Your task to perform on an android device: change timer sound Image 0: 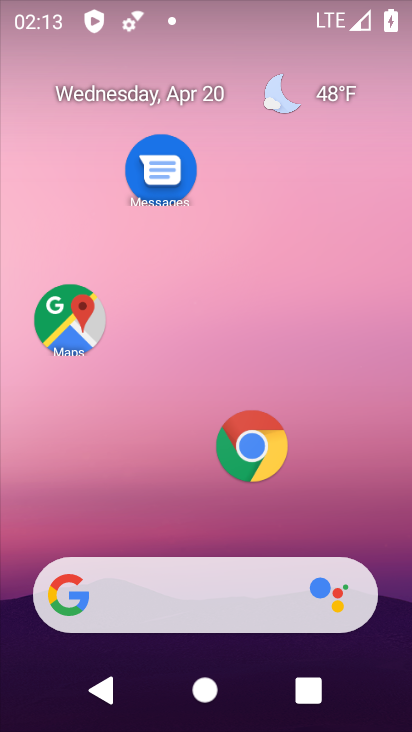
Step 0: drag from (203, 524) to (255, 57)
Your task to perform on an android device: change timer sound Image 1: 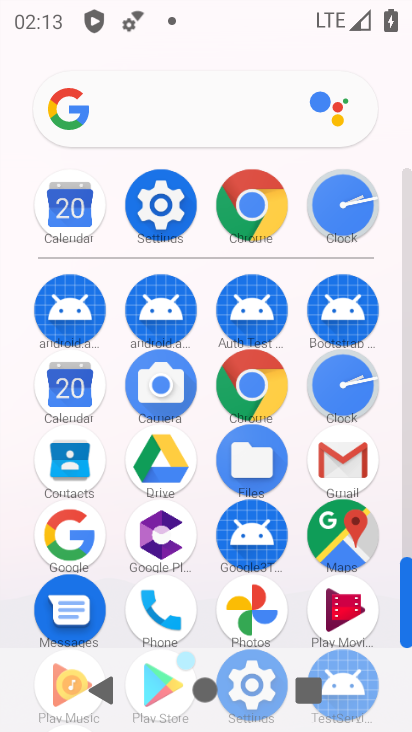
Step 1: click (340, 199)
Your task to perform on an android device: change timer sound Image 2: 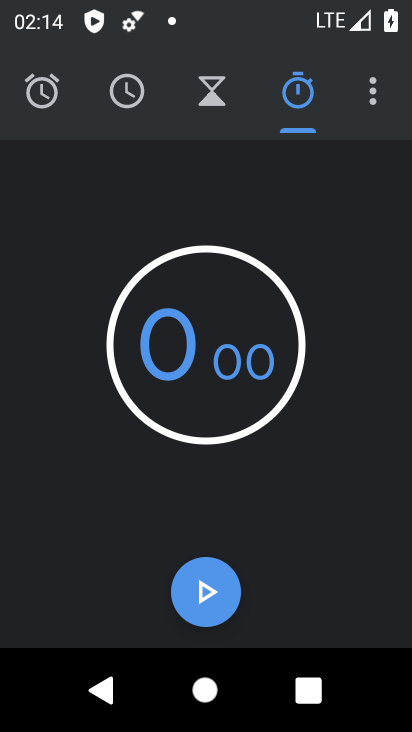
Step 2: click (371, 93)
Your task to perform on an android device: change timer sound Image 3: 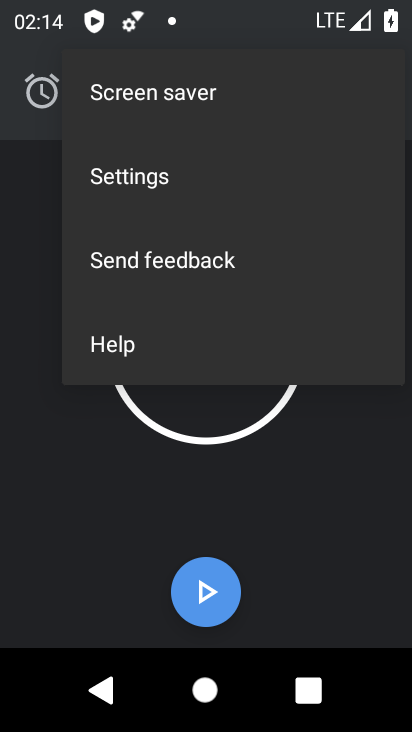
Step 3: click (172, 179)
Your task to perform on an android device: change timer sound Image 4: 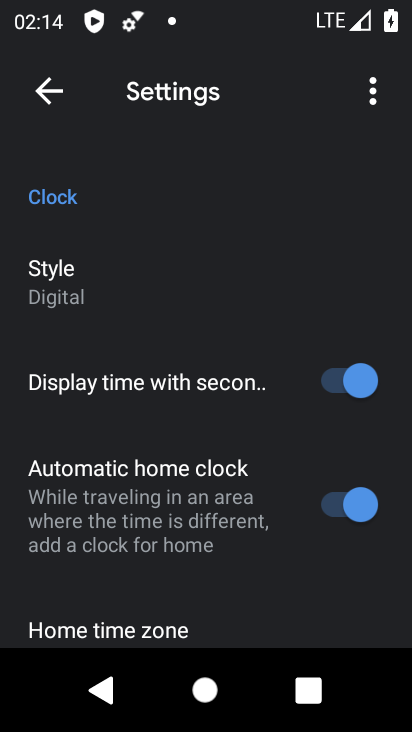
Step 4: drag from (247, 600) to (265, 110)
Your task to perform on an android device: change timer sound Image 5: 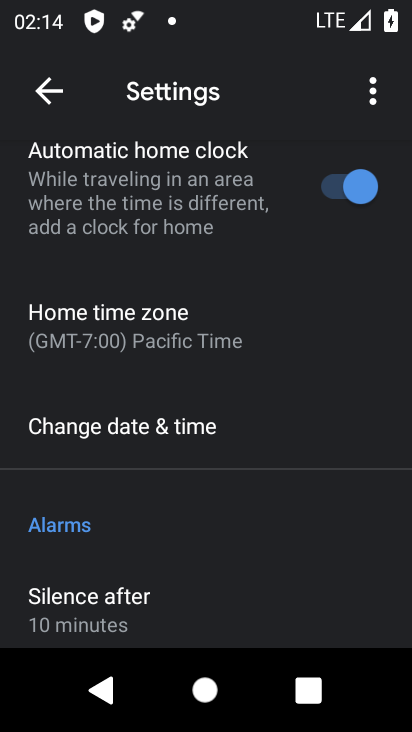
Step 5: drag from (221, 583) to (269, 144)
Your task to perform on an android device: change timer sound Image 6: 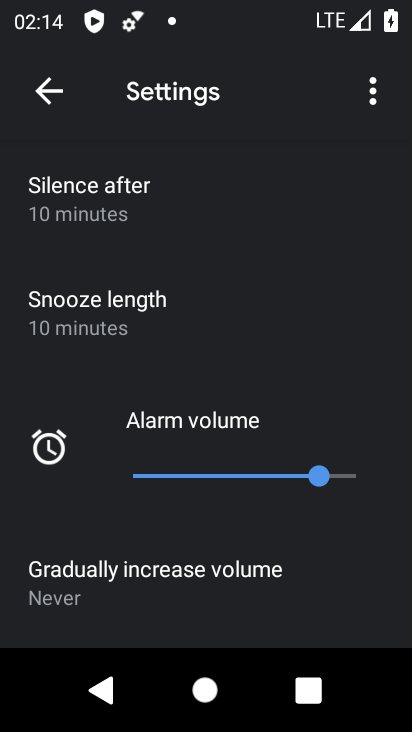
Step 6: drag from (178, 604) to (213, 135)
Your task to perform on an android device: change timer sound Image 7: 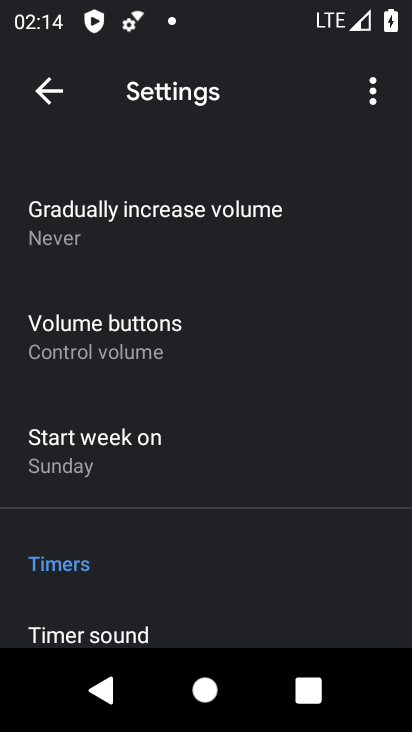
Step 7: click (163, 628)
Your task to perform on an android device: change timer sound Image 8: 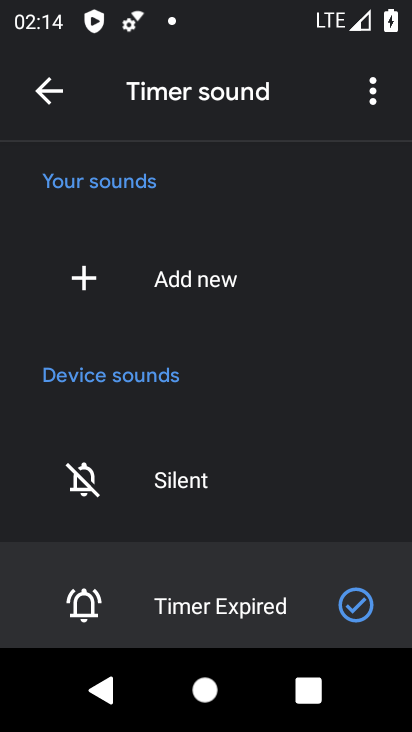
Step 8: drag from (238, 532) to (267, 144)
Your task to perform on an android device: change timer sound Image 9: 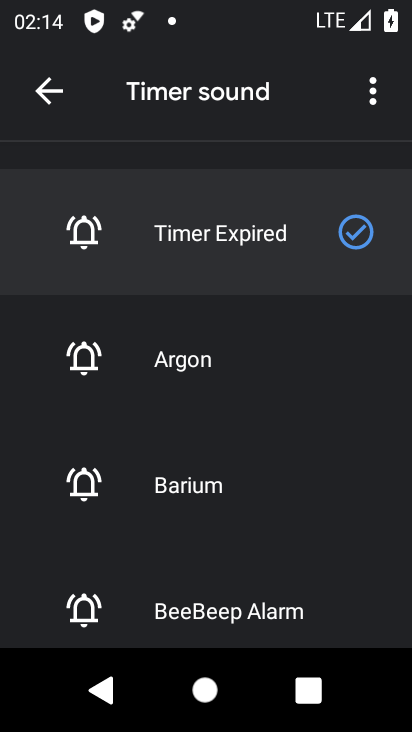
Step 9: click (122, 605)
Your task to perform on an android device: change timer sound Image 10: 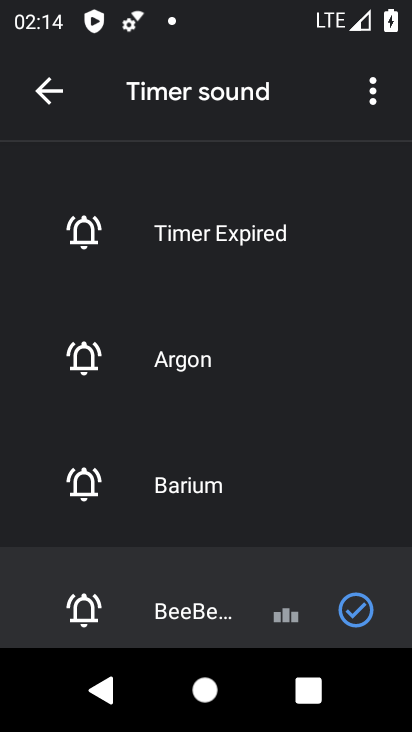
Step 10: task complete